Your task to perform on an android device: turn notification dots off Image 0: 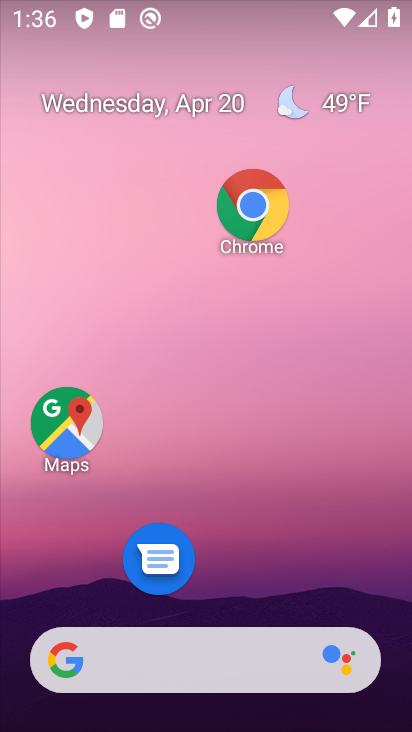
Step 0: drag from (234, 593) to (266, 341)
Your task to perform on an android device: turn notification dots off Image 1: 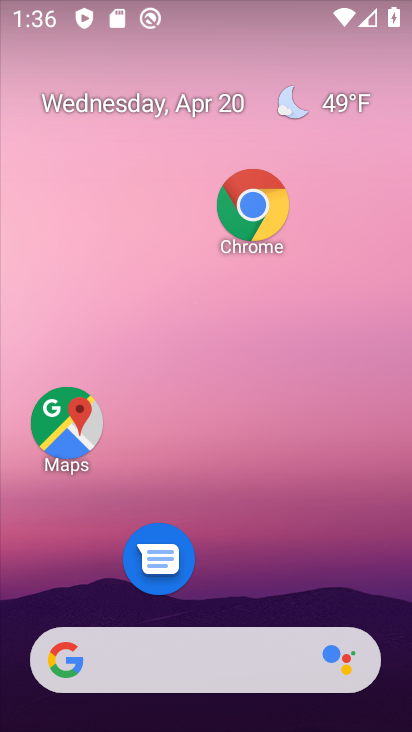
Step 1: drag from (214, 622) to (203, 158)
Your task to perform on an android device: turn notification dots off Image 2: 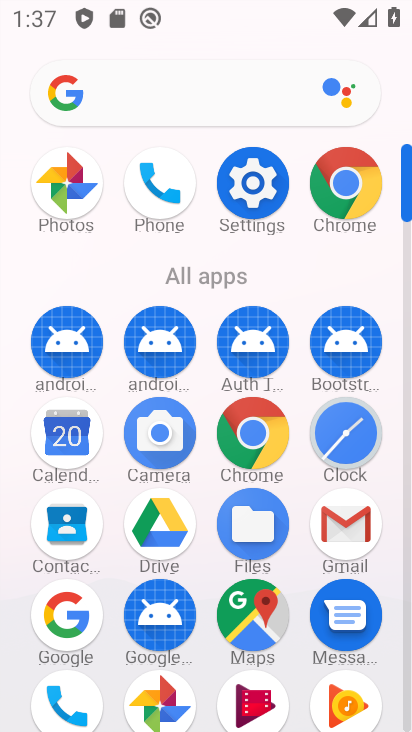
Step 2: click (255, 188)
Your task to perform on an android device: turn notification dots off Image 3: 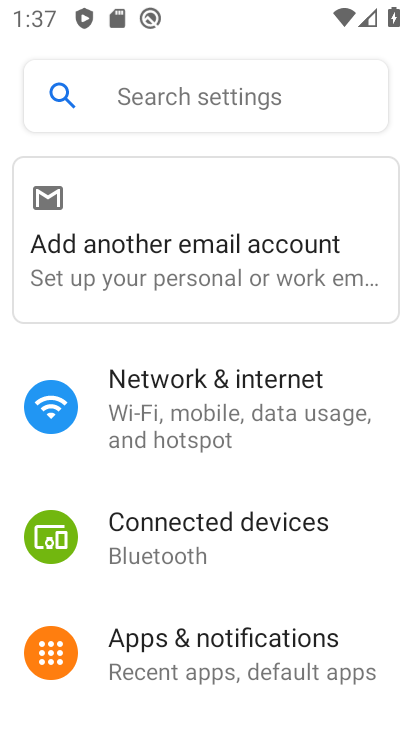
Step 3: click (166, 644)
Your task to perform on an android device: turn notification dots off Image 4: 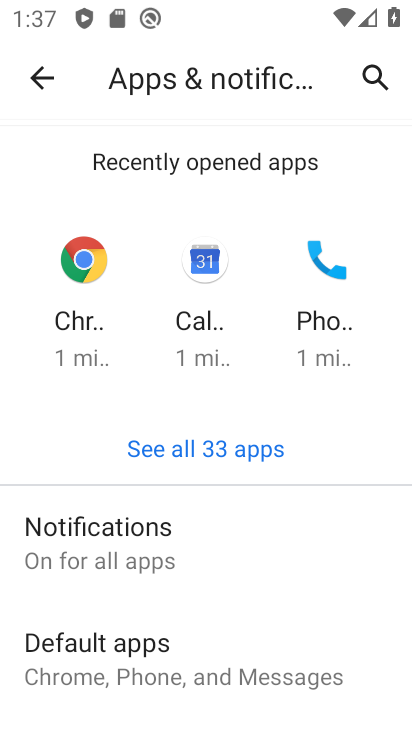
Step 4: click (128, 560)
Your task to perform on an android device: turn notification dots off Image 5: 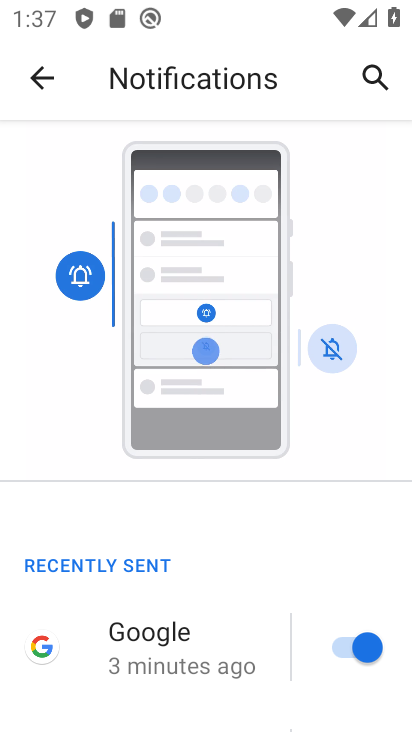
Step 5: drag from (234, 673) to (233, 295)
Your task to perform on an android device: turn notification dots off Image 6: 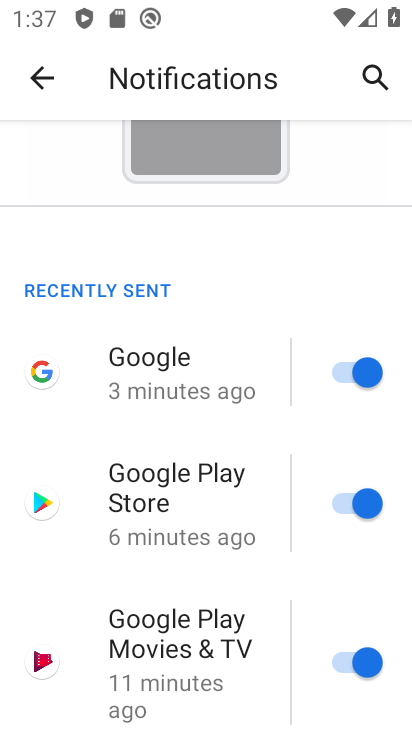
Step 6: drag from (226, 702) to (227, 306)
Your task to perform on an android device: turn notification dots off Image 7: 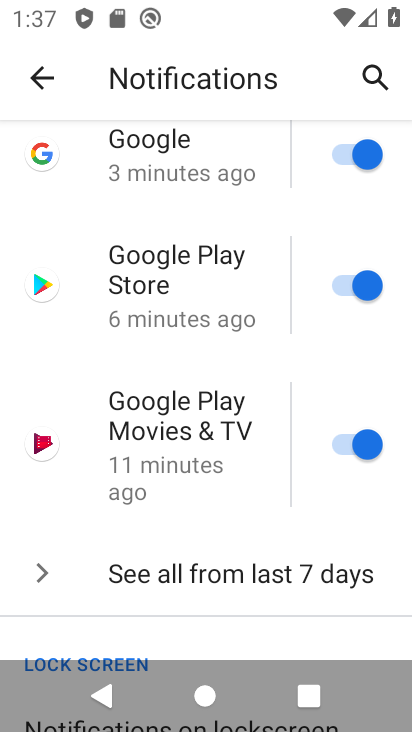
Step 7: drag from (176, 621) to (148, 259)
Your task to perform on an android device: turn notification dots off Image 8: 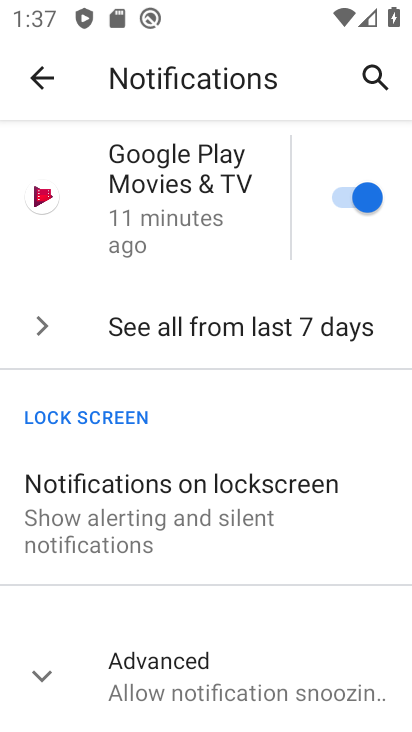
Step 8: click (169, 671)
Your task to perform on an android device: turn notification dots off Image 9: 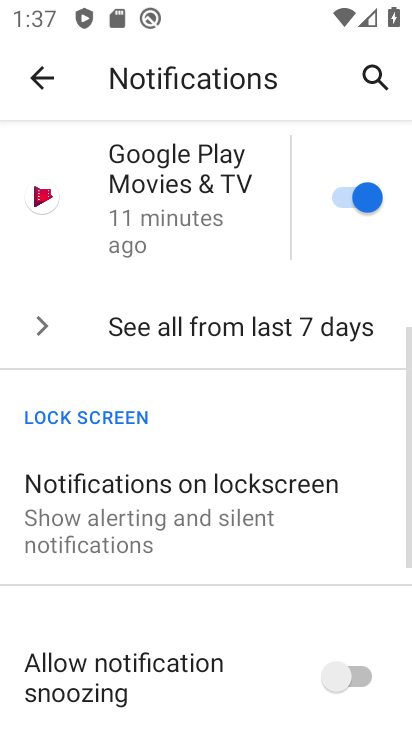
Step 9: drag from (176, 700) to (185, 365)
Your task to perform on an android device: turn notification dots off Image 10: 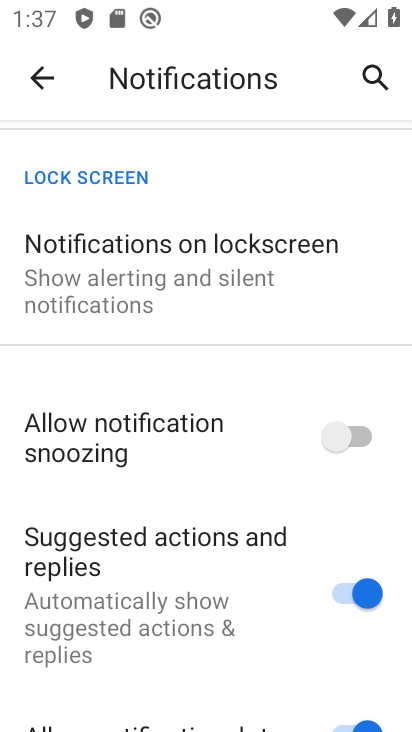
Step 10: drag from (190, 639) to (158, 347)
Your task to perform on an android device: turn notification dots off Image 11: 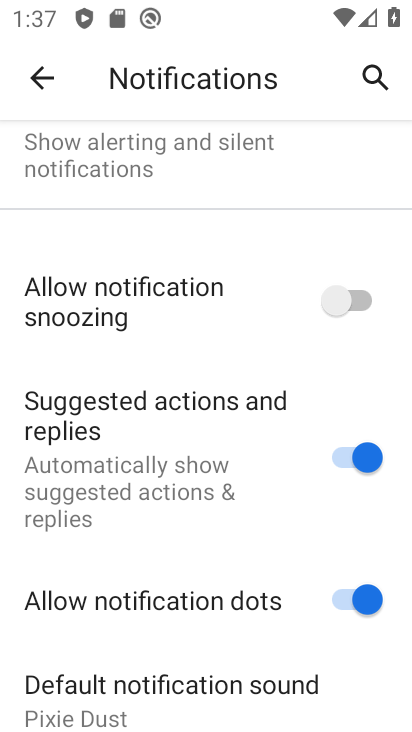
Step 11: click (342, 601)
Your task to perform on an android device: turn notification dots off Image 12: 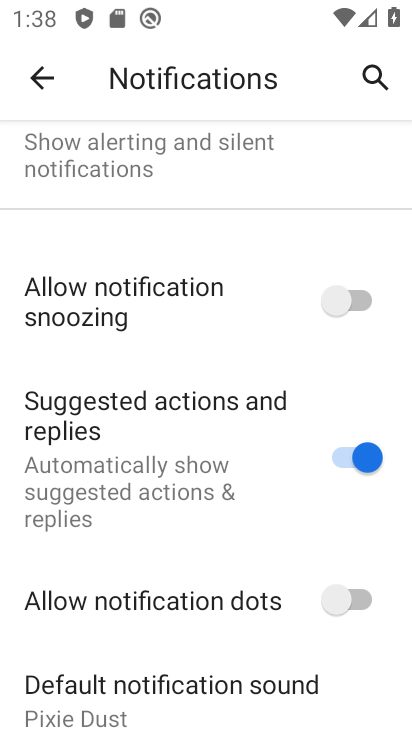
Step 12: task complete